Your task to perform on an android device: Show me productivity apps on the Play Store Image 0: 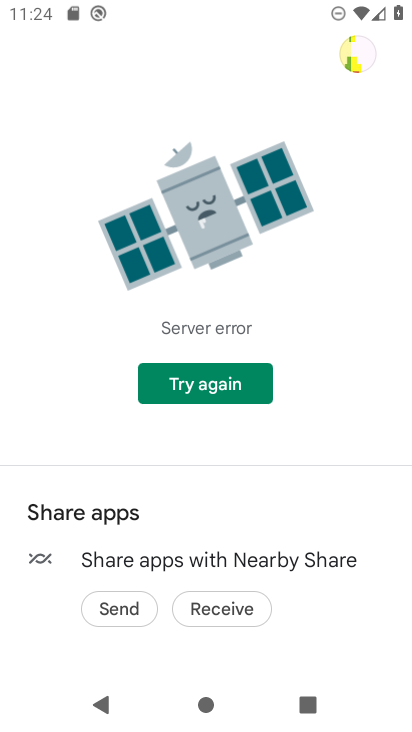
Step 0: click (260, 383)
Your task to perform on an android device: Show me productivity apps on the Play Store Image 1: 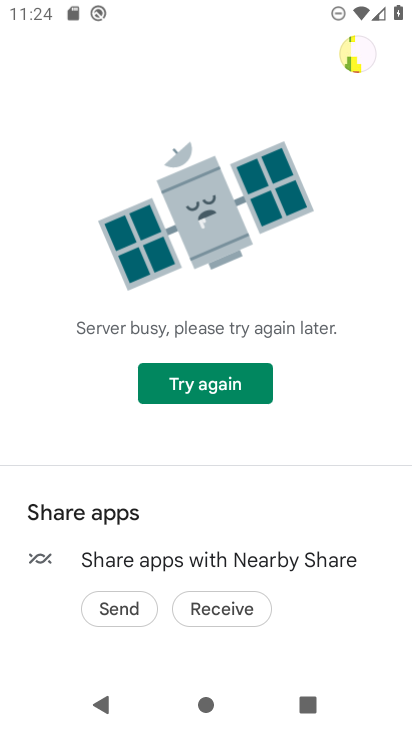
Step 1: task complete